Your task to perform on an android device: snooze an email in the gmail app Image 0: 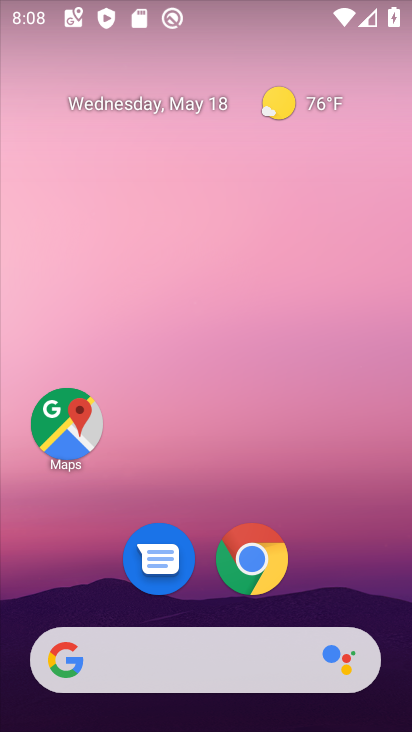
Step 0: drag from (184, 615) to (106, 32)
Your task to perform on an android device: snooze an email in the gmail app Image 1: 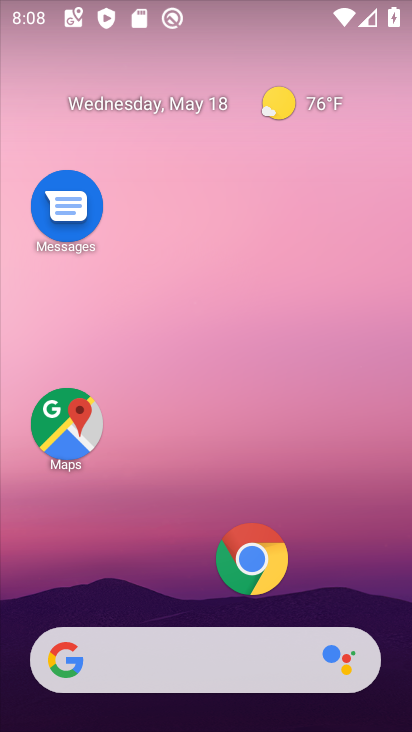
Step 1: drag from (181, 617) to (244, 8)
Your task to perform on an android device: snooze an email in the gmail app Image 2: 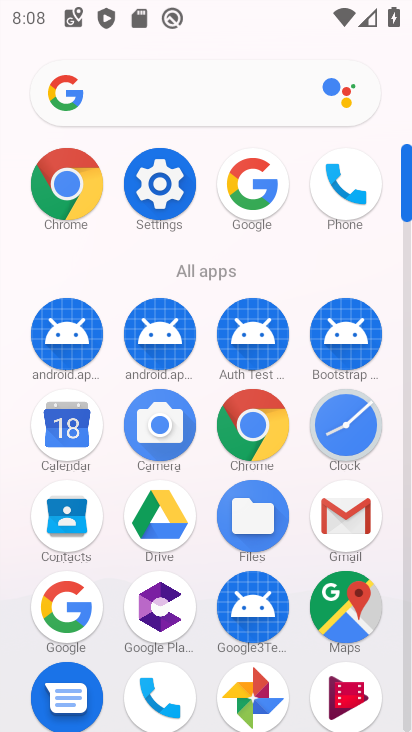
Step 2: click (361, 542)
Your task to perform on an android device: snooze an email in the gmail app Image 3: 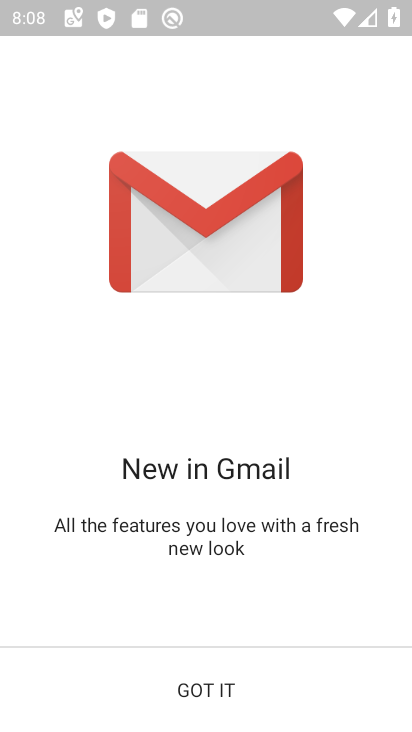
Step 3: click (162, 683)
Your task to perform on an android device: snooze an email in the gmail app Image 4: 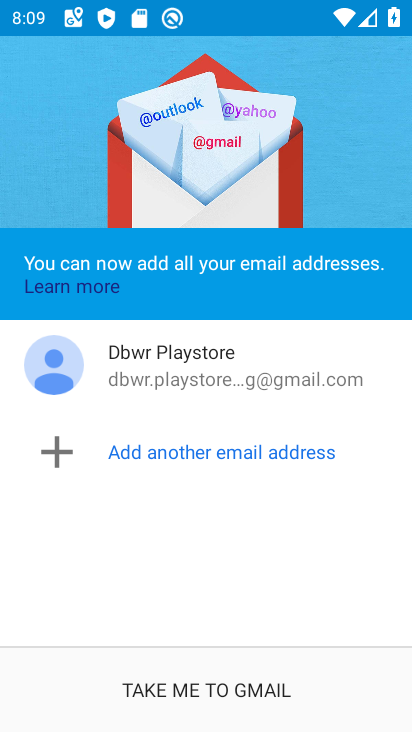
Step 4: click (163, 681)
Your task to perform on an android device: snooze an email in the gmail app Image 5: 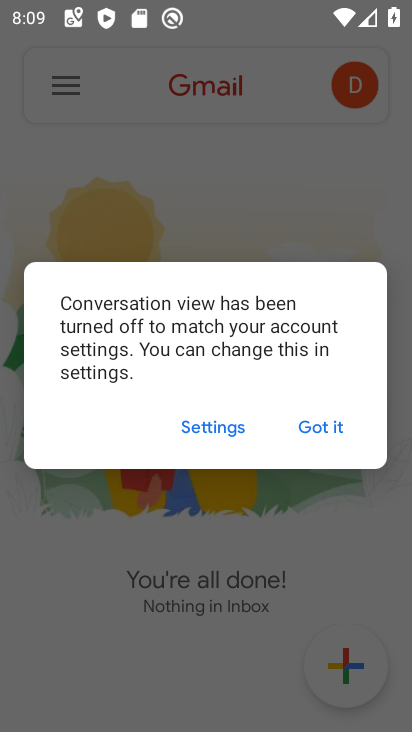
Step 5: click (315, 424)
Your task to perform on an android device: snooze an email in the gmail app Image 6: 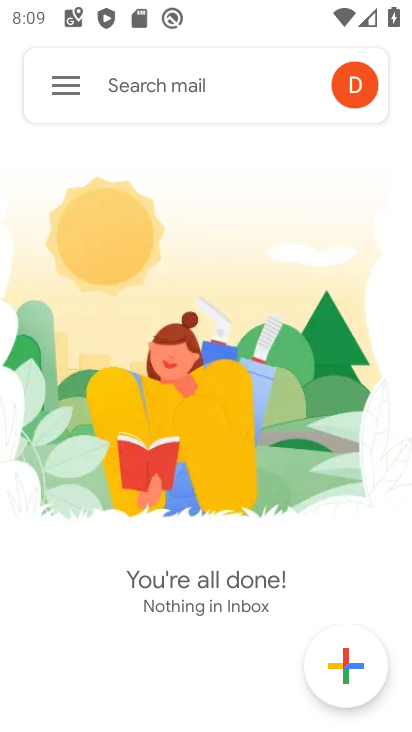
Step 6: click (68, 73)
Your task to perform on an android device: snooze an email in the gmail app Image 7: 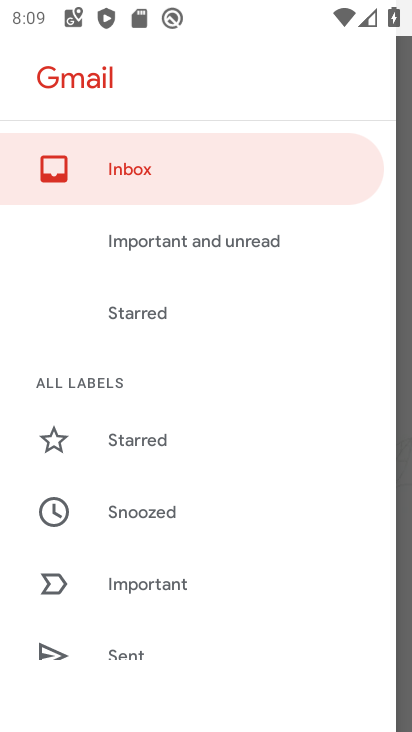
Step 7: drag from (153, 492) to (136, 5)
Your task to perform on an android device: snooze an email in the gmail app Image 8: 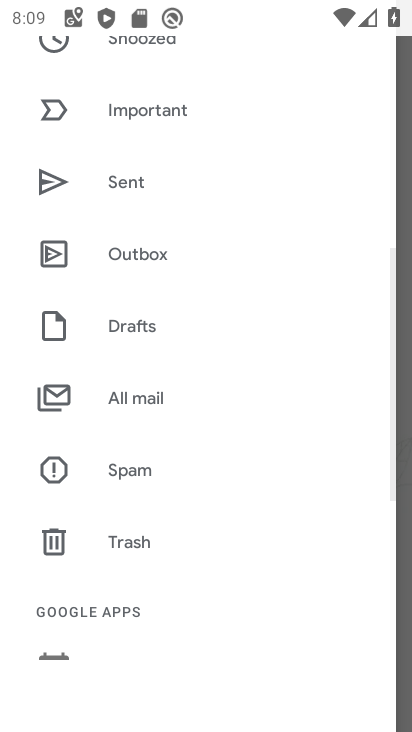
Step 8: click (146, 394)
Your task to perform on an android device: snooze an email in the gmail app Image 9: 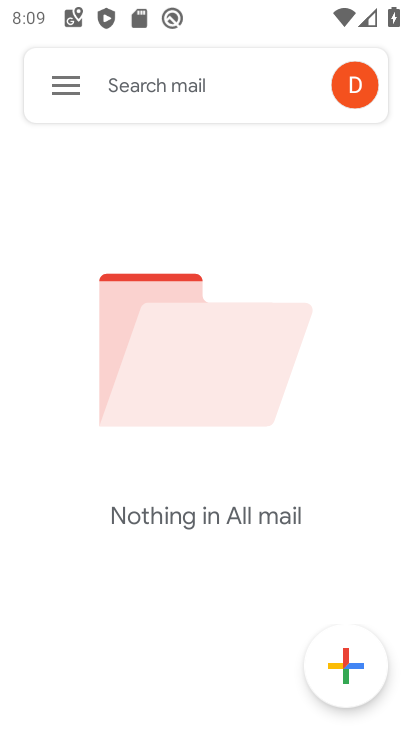
Step 9: task complete